Your task to perform on an android device: Empty the shopping cart on newegg. Search for usb-c to usb-b on newegg, select the first entry, add it to the cart, then select checkout. Image 0: 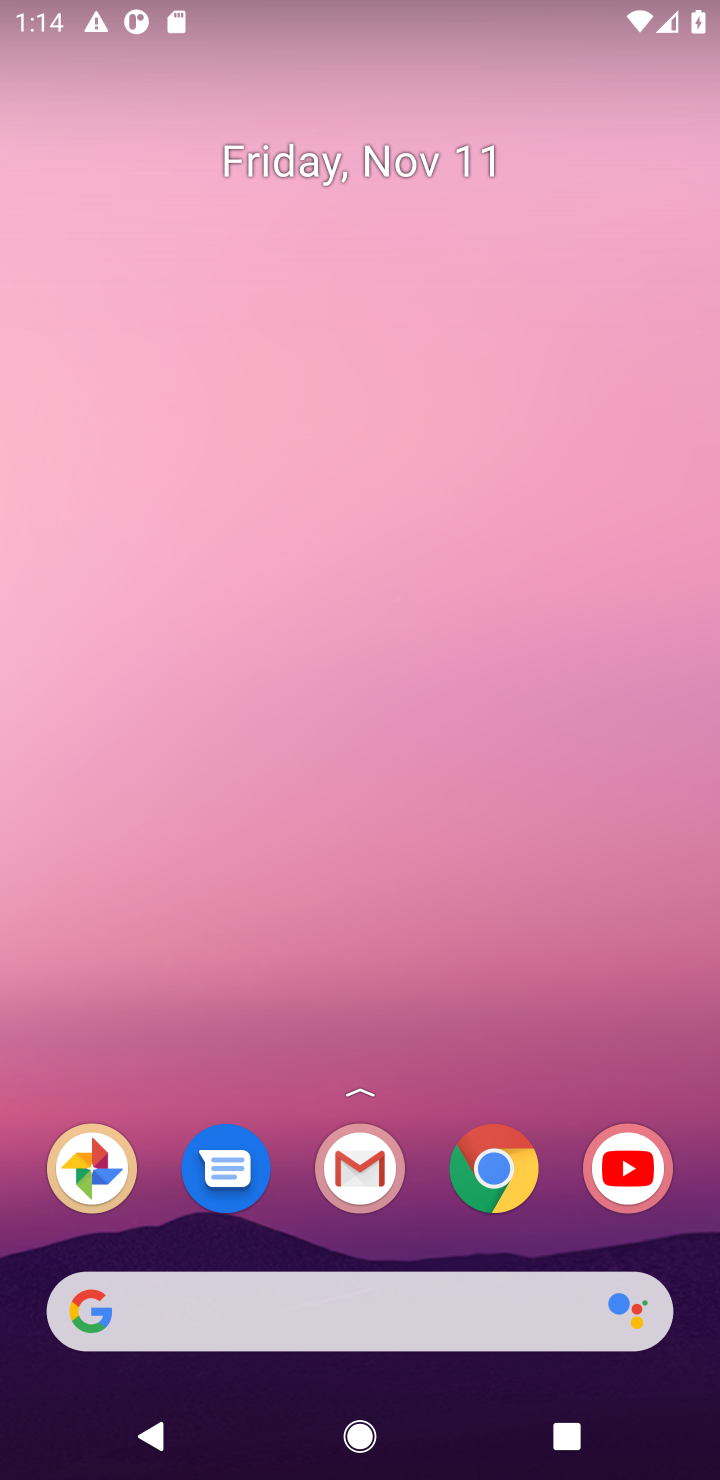
Step 0: click (512, 1175)
Your task to perform on an android device: Empty the shopping cart on newegg. Search for usb-c to usb-b on newegg, select the first entry, add it to the cart, then select checkout. Image 1: 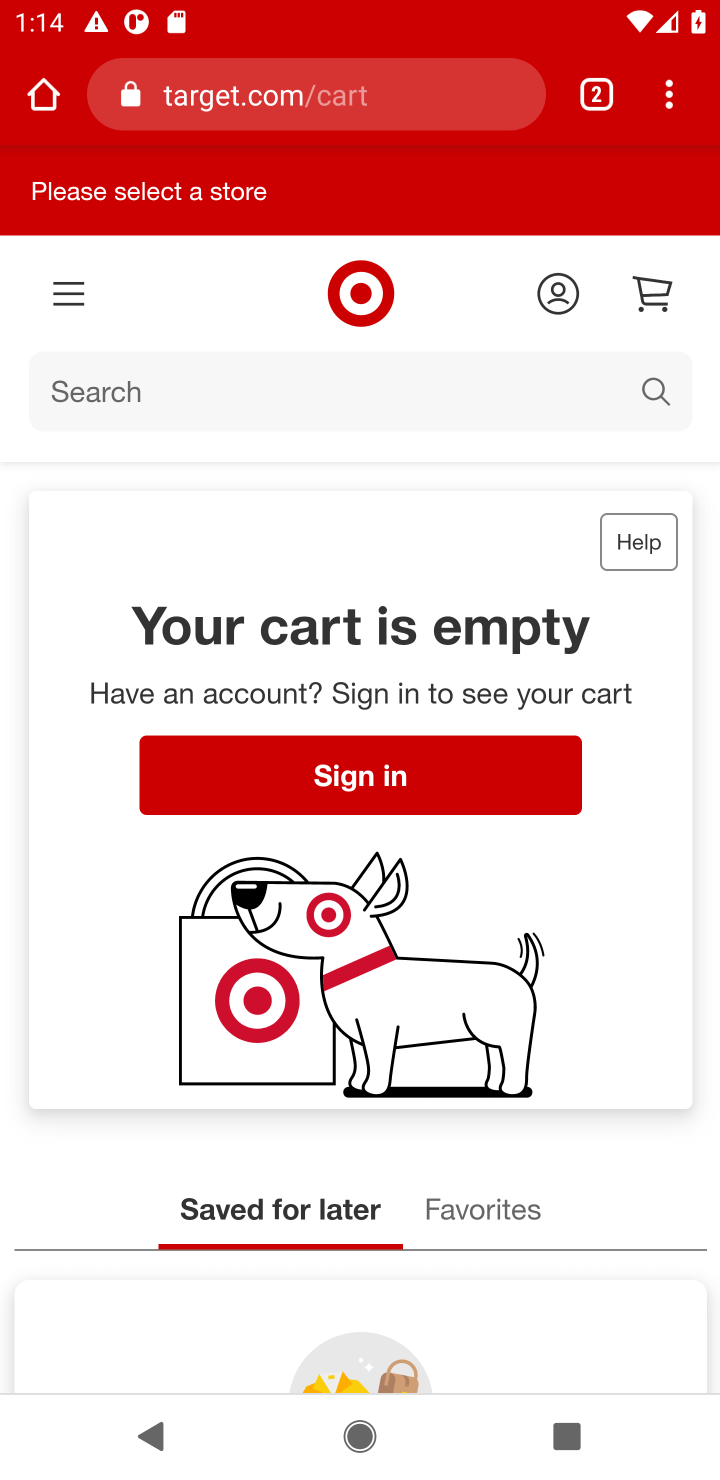
Step 1: click (240, 86)
Your task to perform on an android device: Empty the shopping cart on newegg. Search for usb-c to usb-b on newegg, select the first entry, add it to the cart, then select checkout. Image 2: 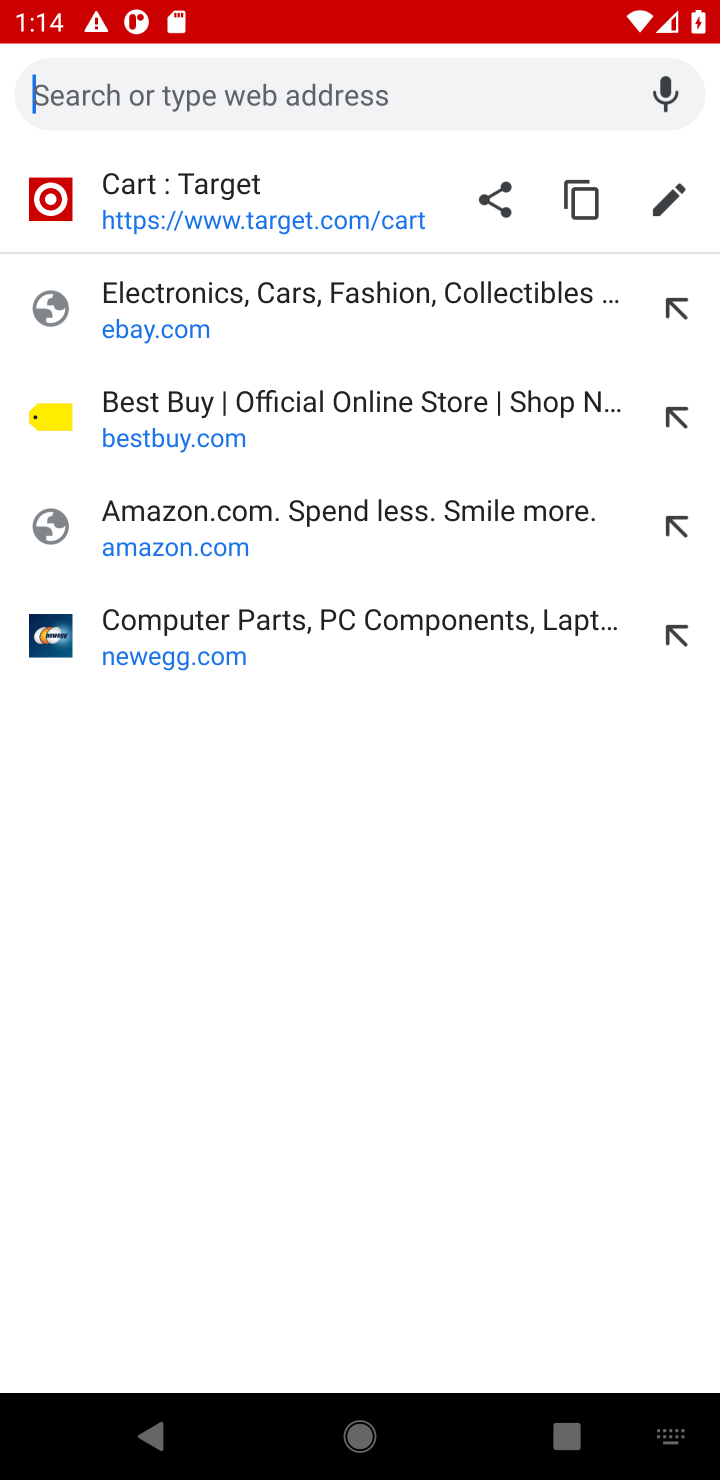
Step 2: click (186, 664)
Your task to perform on an android device: Empty the shopping cart on newegg. Search for usb-c to usb-b on newegg, select the first entry, add it to the cart, then select checkout. Image 3: 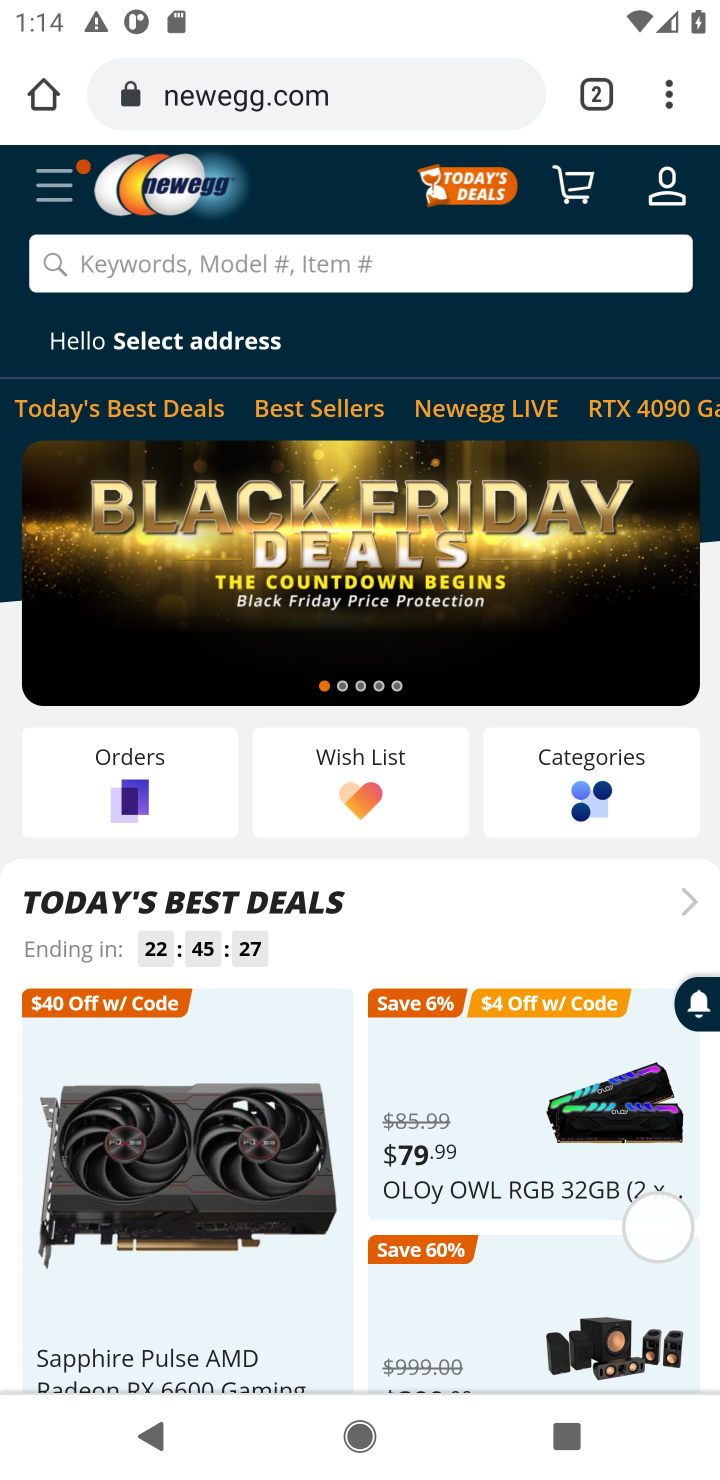
Step 3: click (566, 183)
Your task to perform on an android device: Empty the shopping cart on newegg. Search for usb-c to usb-b on newegg, select the first entry, add it to the cart, then select checkout. Image 4: 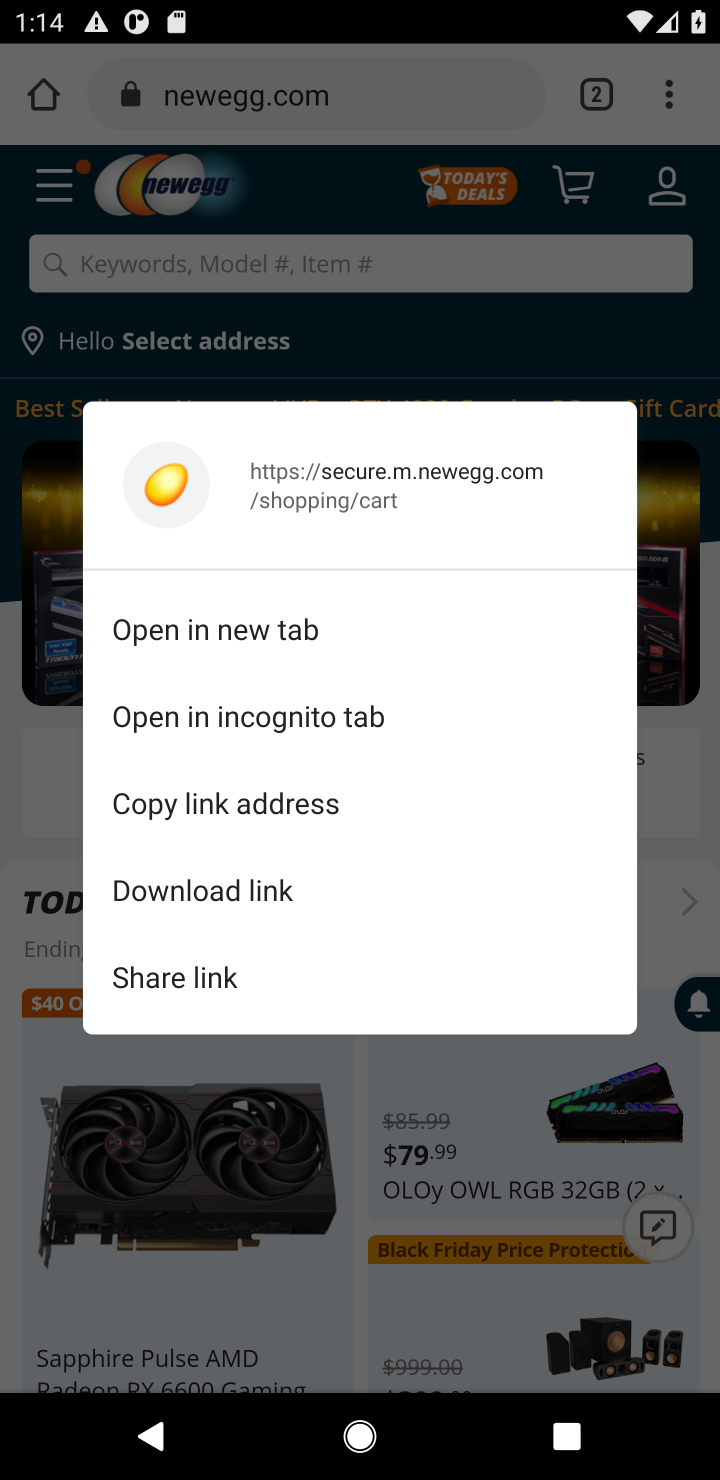
Step 4: click (587, 187)
Your task to perform on an android device: Empty the shopping cart on newegg. Search for usb-c to usb-b on newegg, select the first entry, add it to the cart, then select checkout. Image 5: 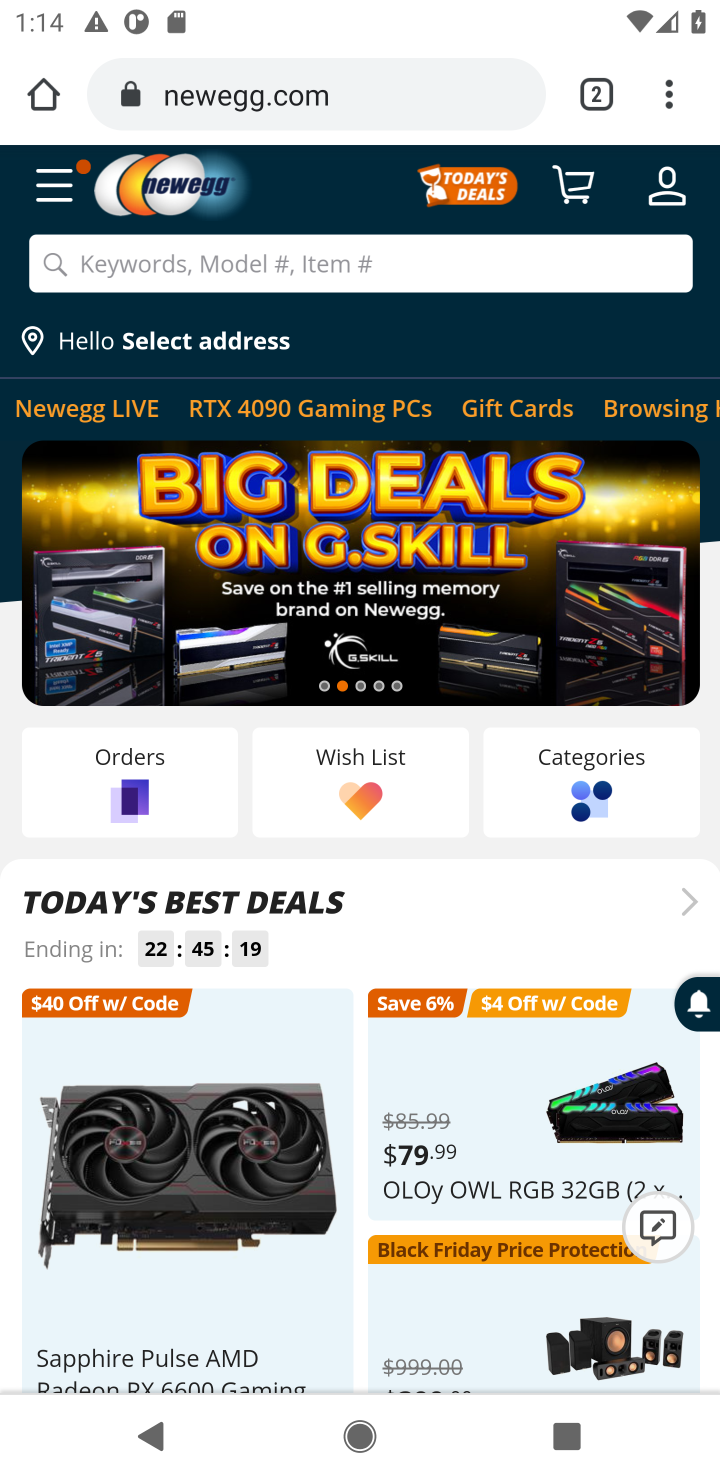
Step 5: click (587, 187)
Your task to perform on an android device: Empty the shopping cart on newegg. Search for usb-c to usb-b on newegg, select the first entry, add it to the cart, then select checkout. Image 6: 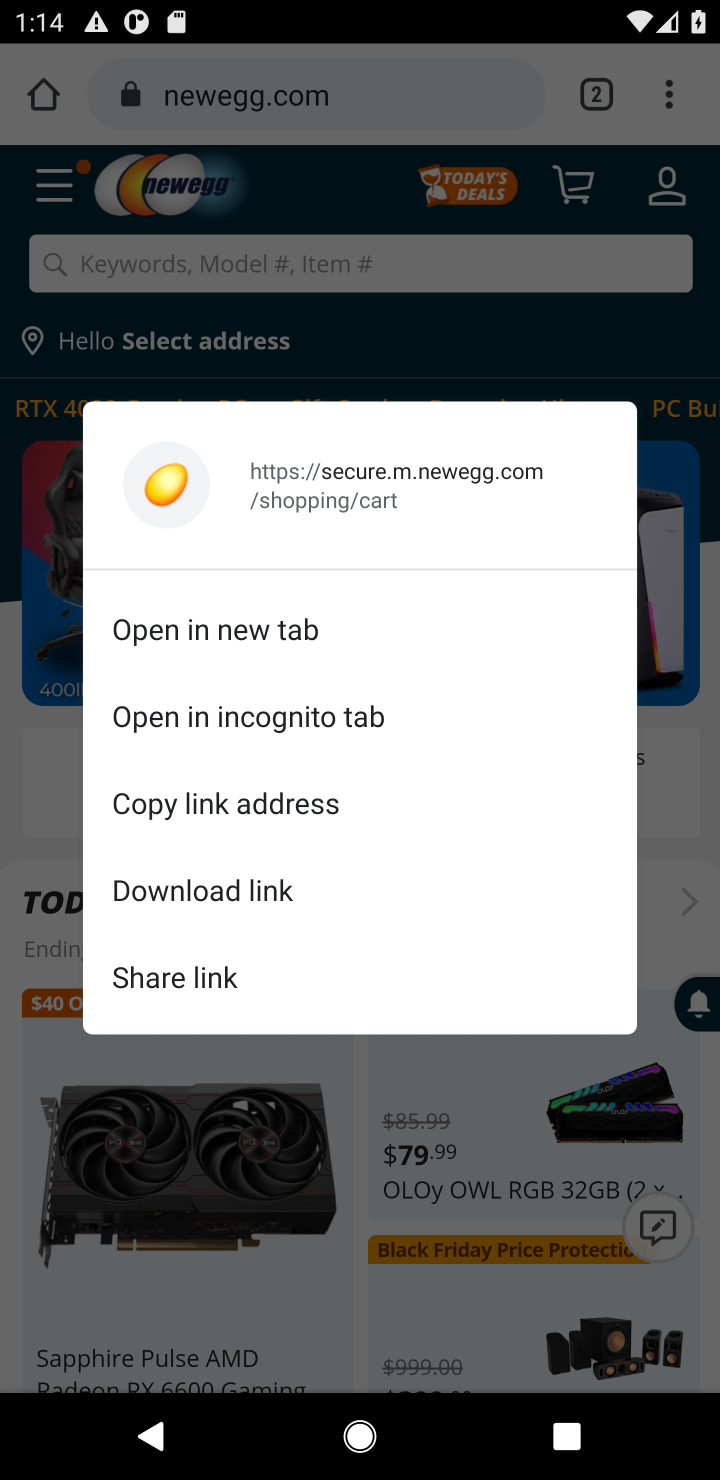
Step 6: click (587, 187)
Your task to perform on an android device: Empty the shopping cart on newegg. Search for usb-c to usb-b on newegg, select the first entry, add it to the cart, then select checkout. Image 7: 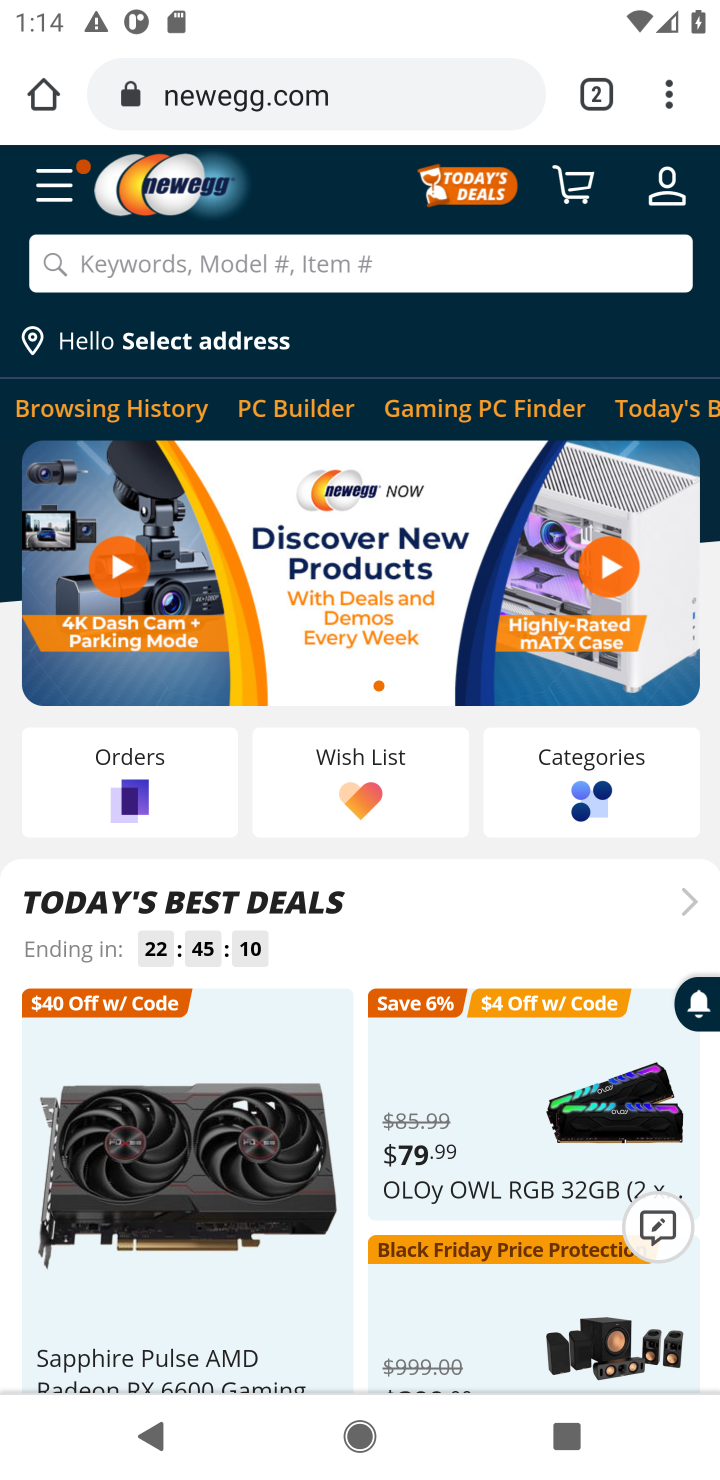
Step 7: click (576, 184)
Your task to perform on an android device: Empty the shopping cart on newegg. Search for usb-c to usb-b on newegg, select the first entry, add it to the cart, then select checkout. Image 8: 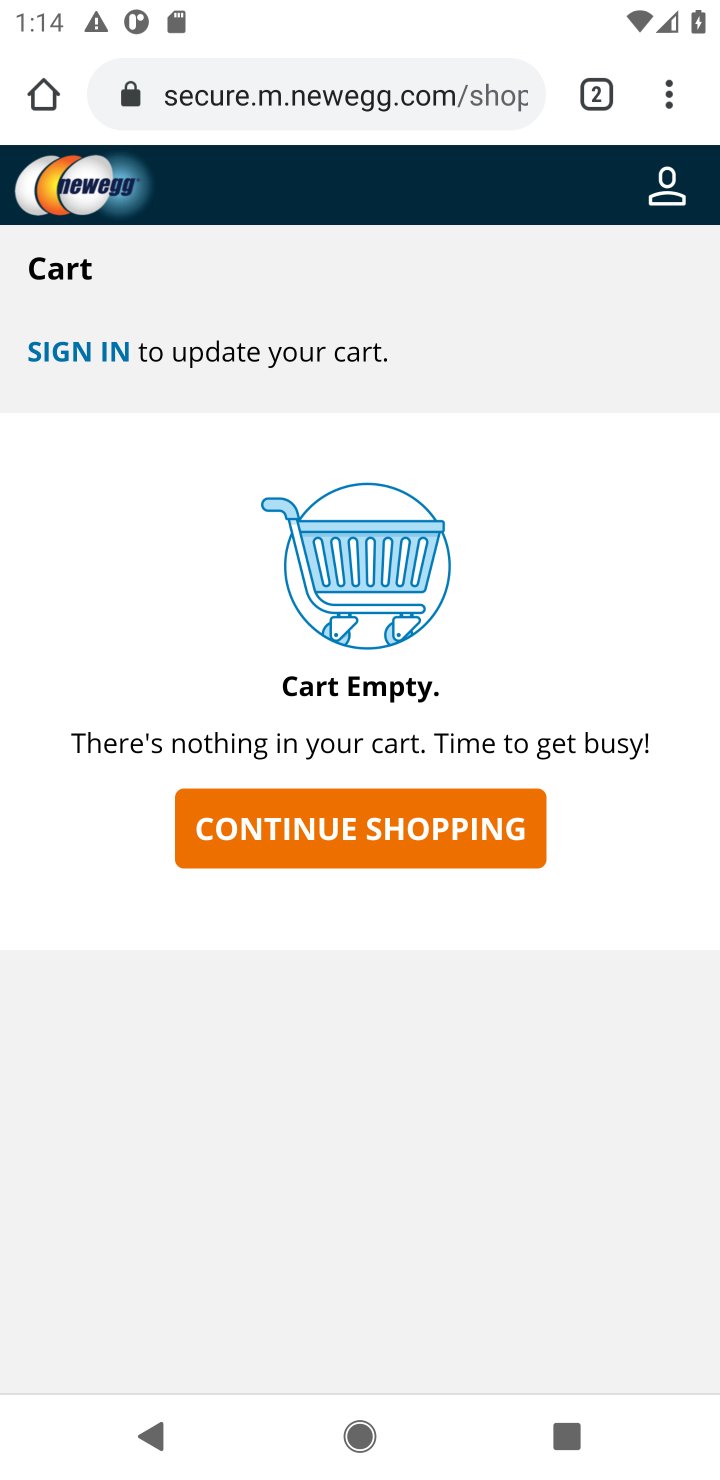
Step 8: click (326, 813)
Your task to perform on an android device: Empty the shopping cart on newegg. Search for usb-c to usb-b on newegg, select the first entry, add it to the cart, then select checkout. Image 9: 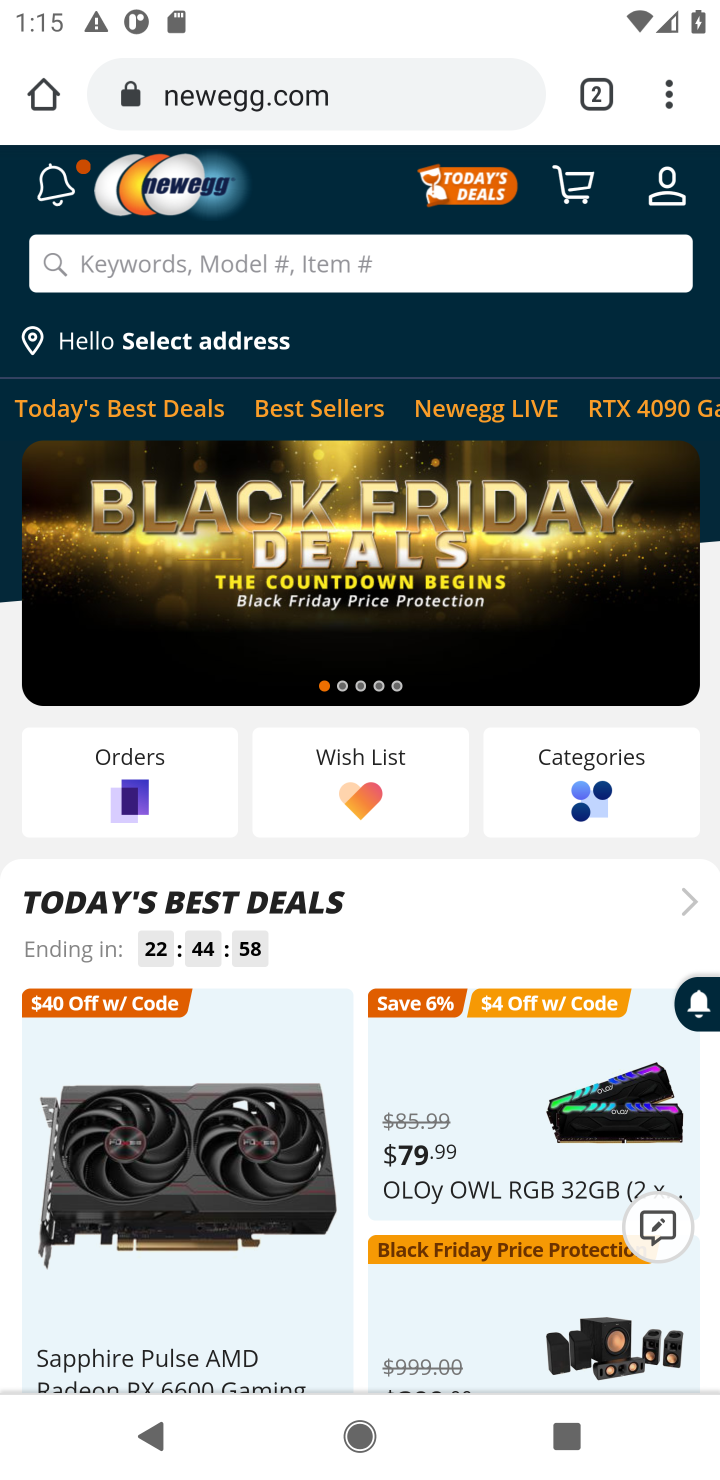
Step 9: click (251, 266)
Your task to perform on an android device: Empty the shopping cart on newegg. Search for usb-c to usb-b on newegg, select the first entry, add it to the cart, then select checkout. Image 10: 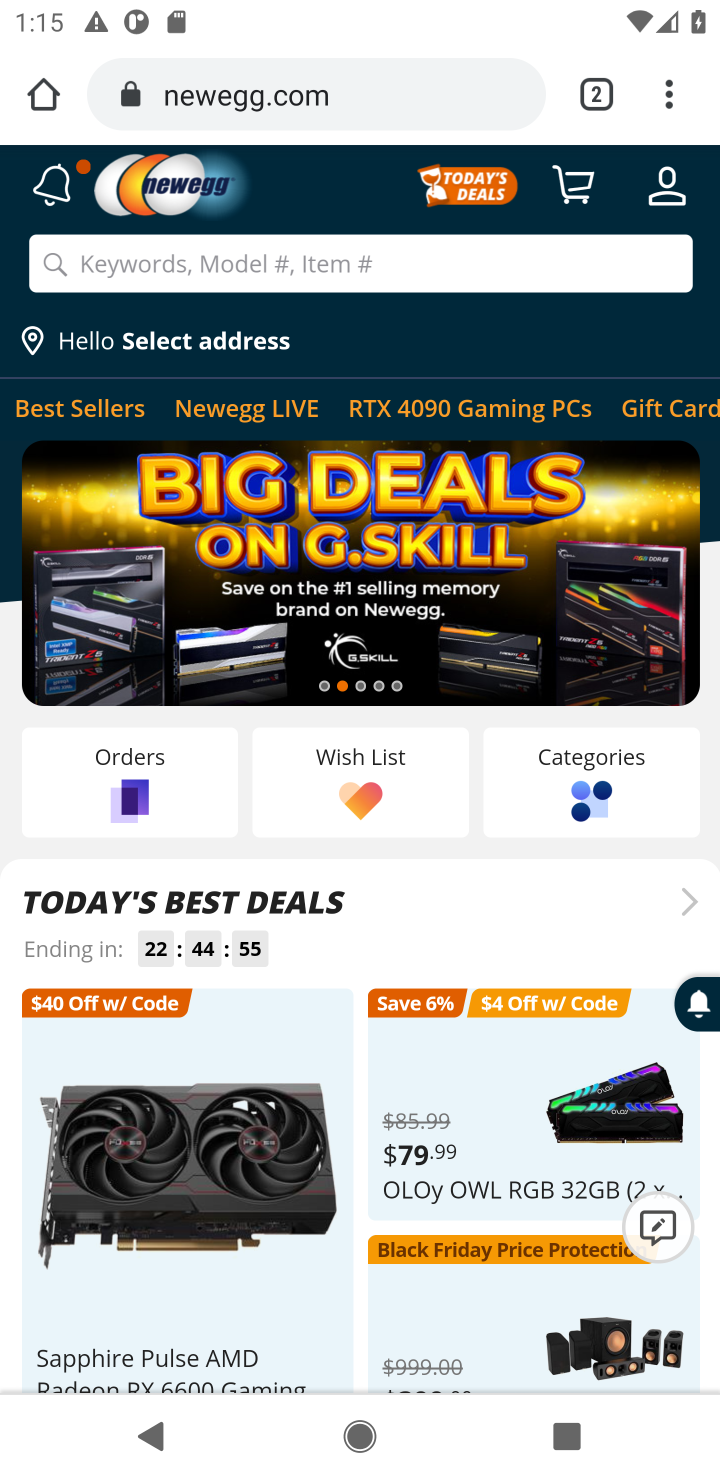
Step 10: type "usb-c to usb-b"
Your task to perform on an android device: Empty the shopping cart on newegg. Search for usb-c to usb-b on newegg, select the first entry, add it to the cart, then select checkout. Image 11: 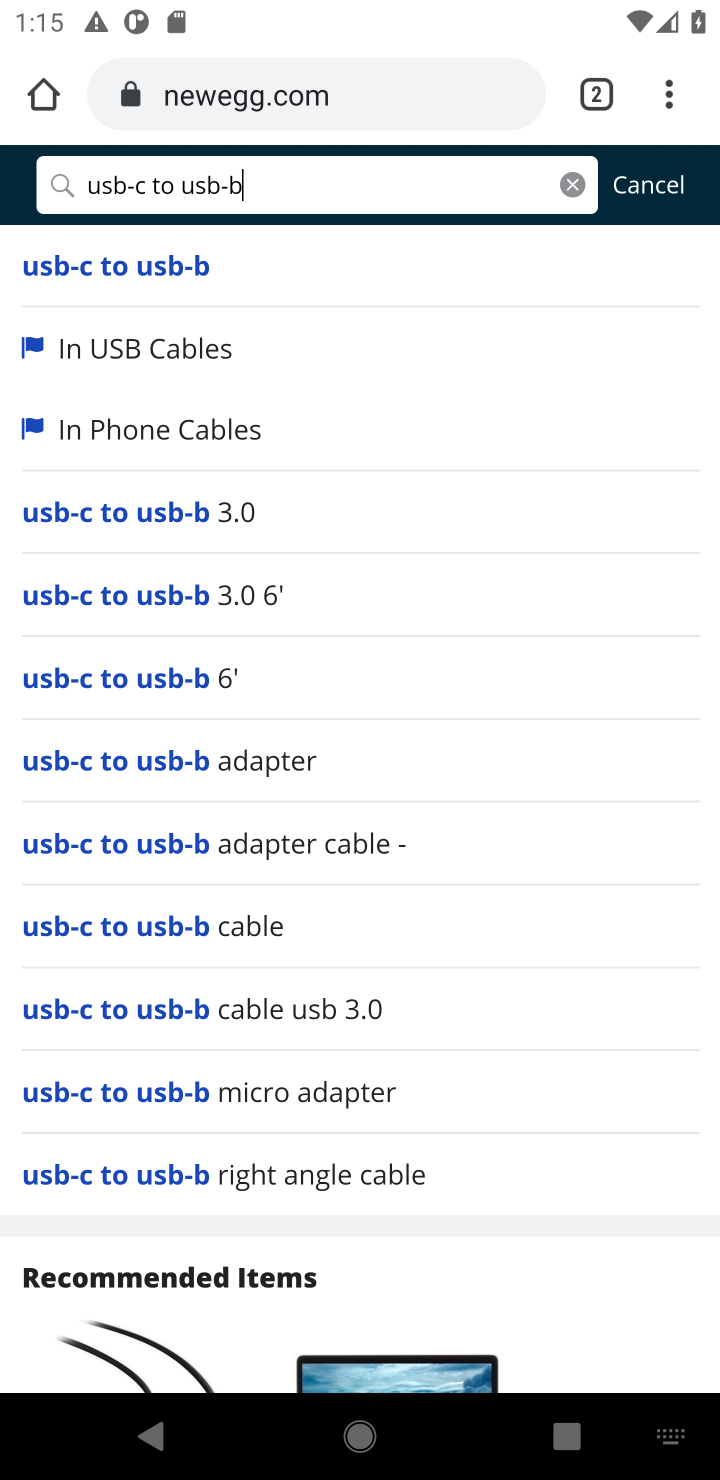
Step 11: click (184, 268)
Your task to perform on an android device: Empty the shopping cart on newegg. Search for usb-c to usb-b on newegg, select the first entry, add it to the cart, then select checkout. Image 12: 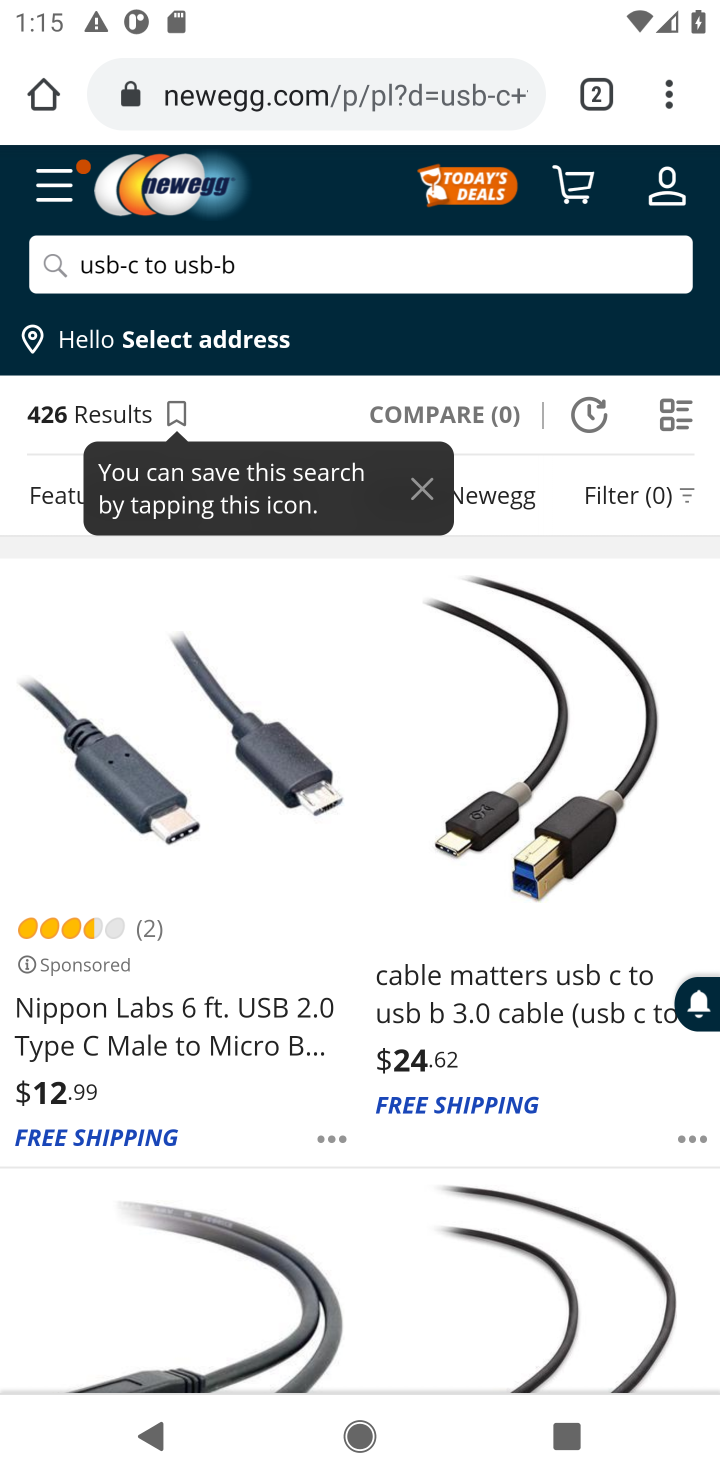
Step 12: click (142, 848)
Your task to perform on an android device: Empty the shopping cart on newegg. Search for usb-c to usb-b on newegg, select the first entry, add it to the cart, then select checkout. Image 13: 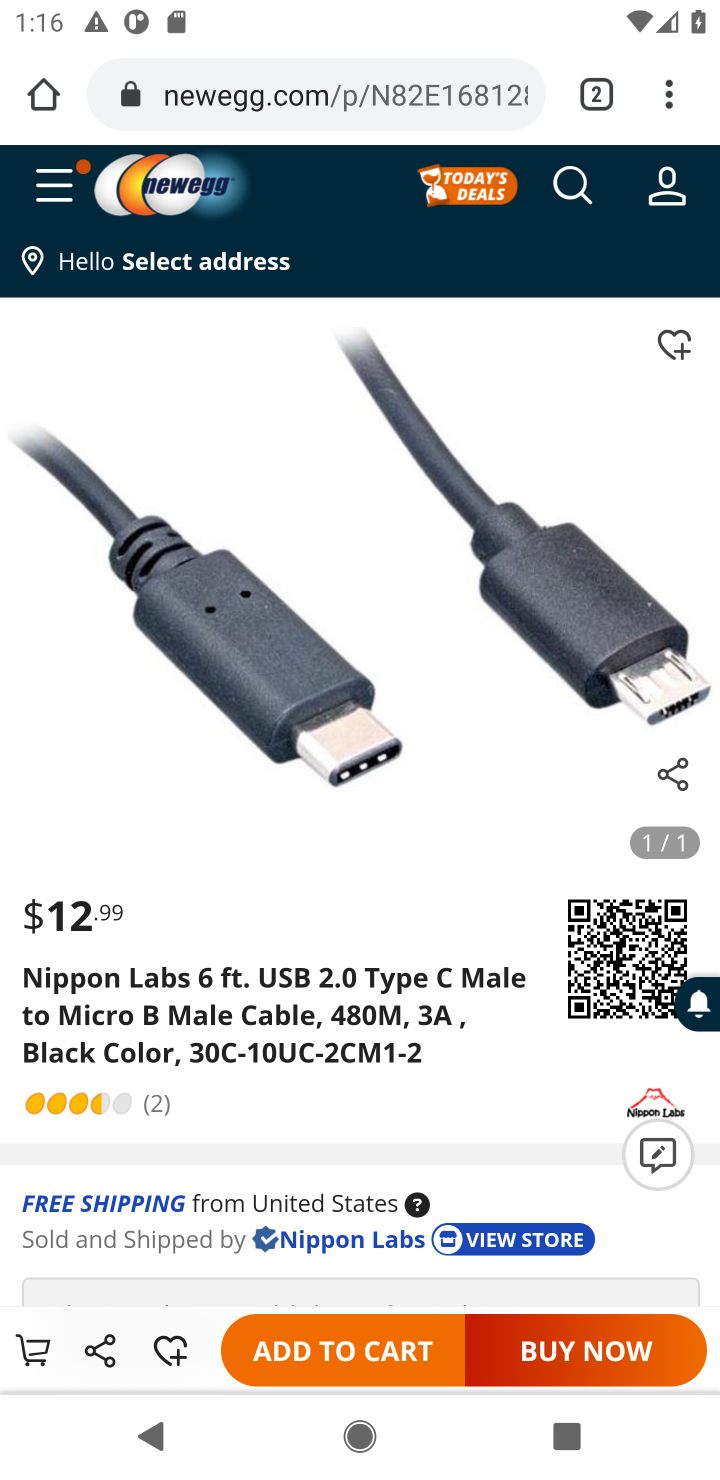
Step 13: task complete